Your task to perform on an android device: uninstall "Yahoo Mail" Image 0: 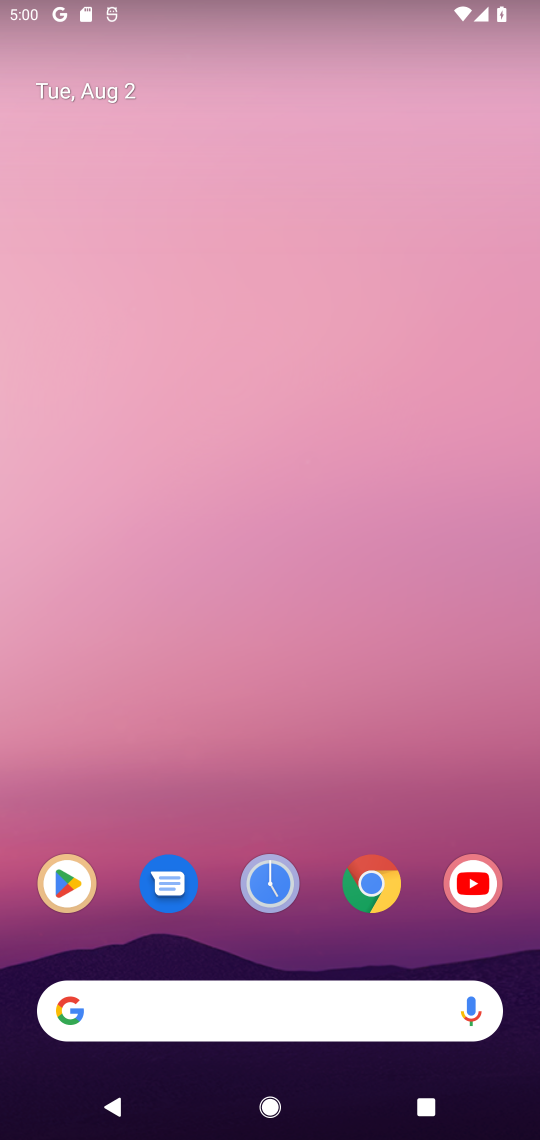
Step 0: click (63, 910)
Your task to perform on an android device: uninstall "Yahoo Mail" Image 1: 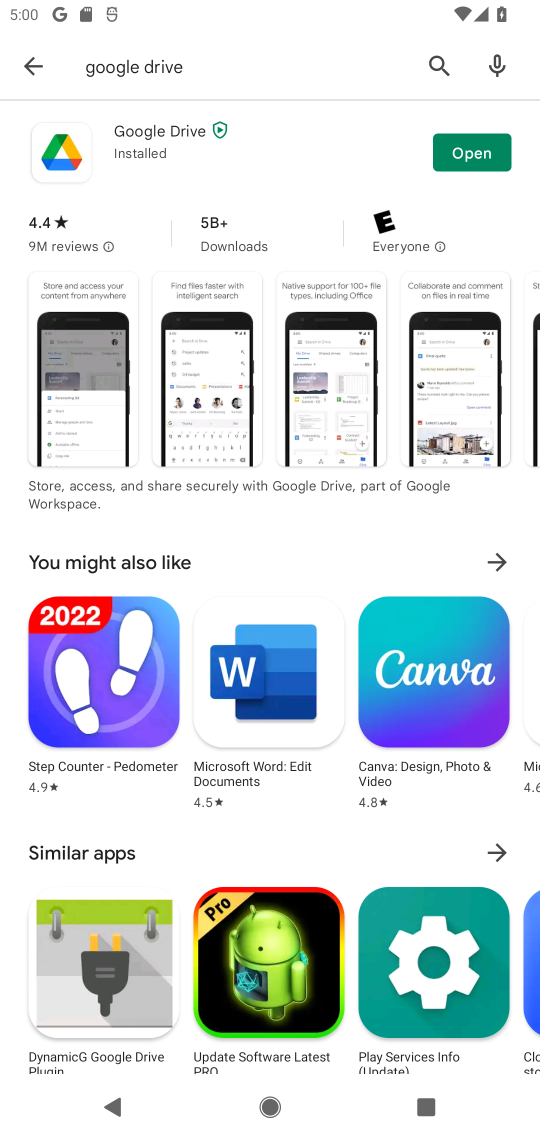
Step 1: click (31, 44)
Your task to perform on an android device: uninstall "Yahoo Mail" Image 2: 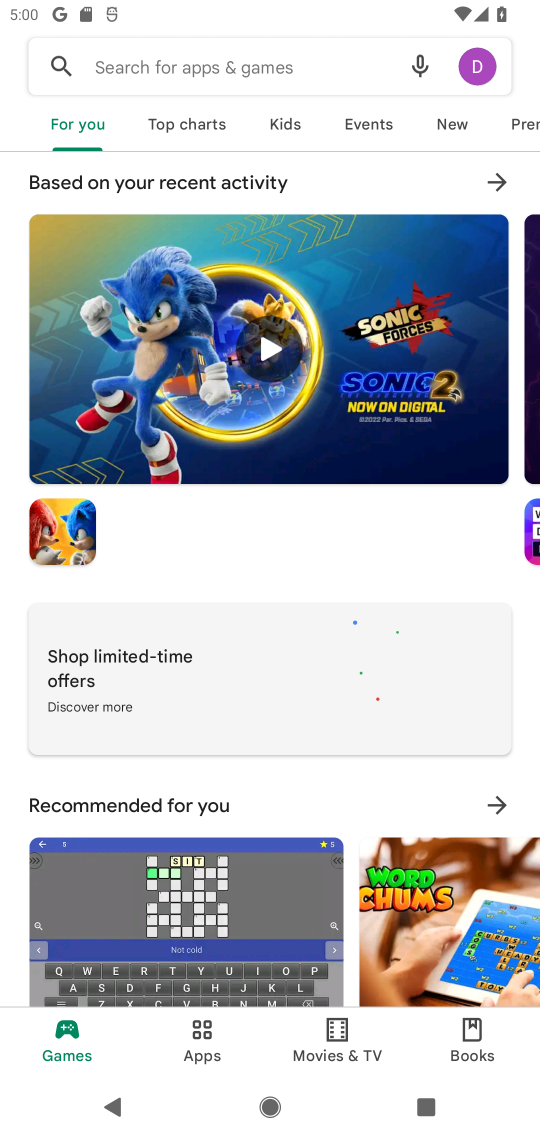
Step 2: click (151, 75)
Your task to perform on an android device: uninstall "Yahoo Mail" Image 3: 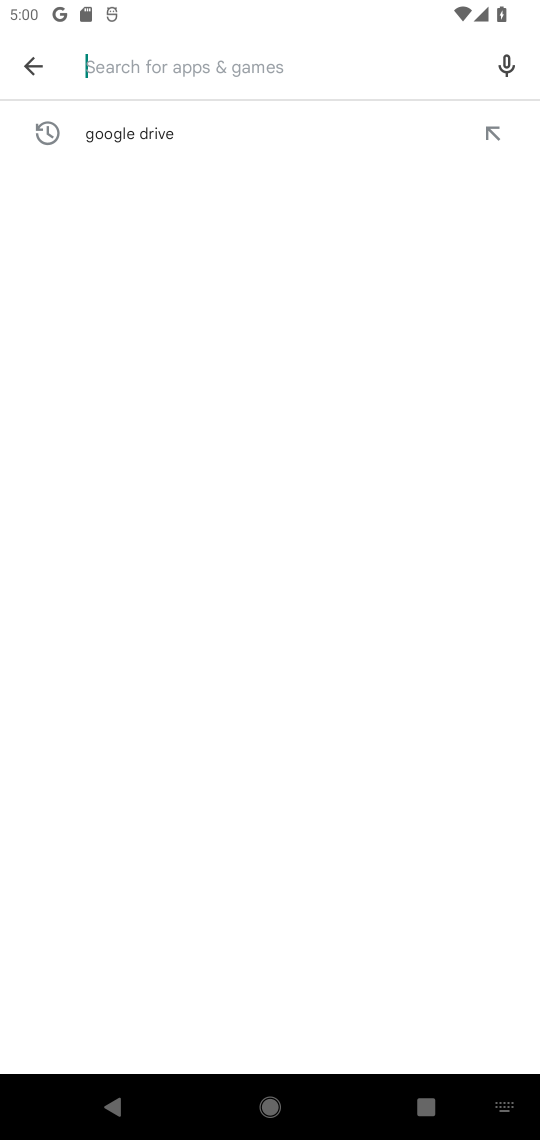
Step 3: type "Yahoo Mail"
Your task to perform on an android device: uninstall "Yahoo Mail" Image 4: 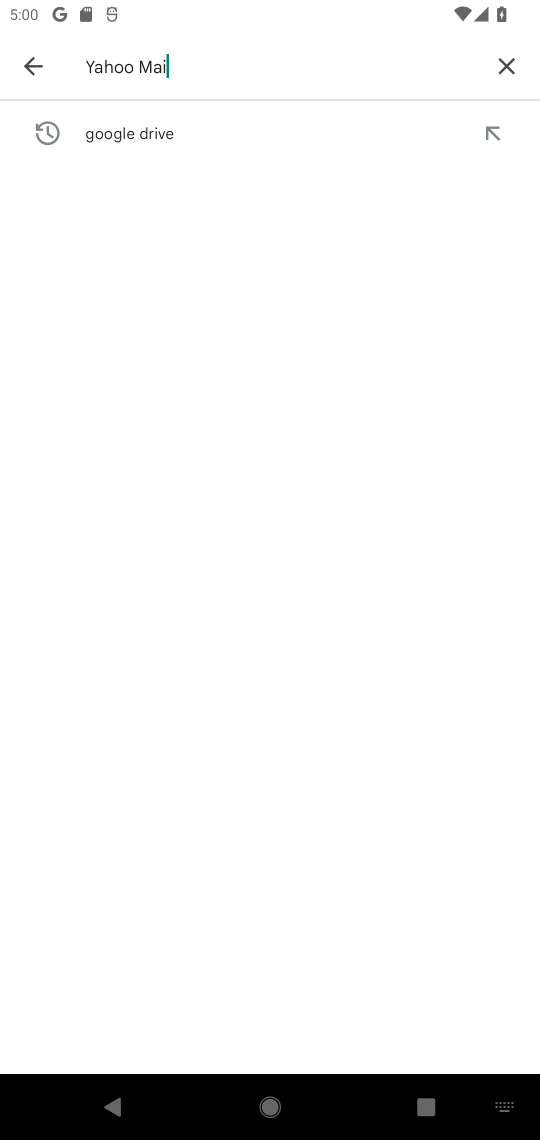
Step 4: type ""
Your task to perform on an android device: uninstall "Yahoo Mail" Image 5: 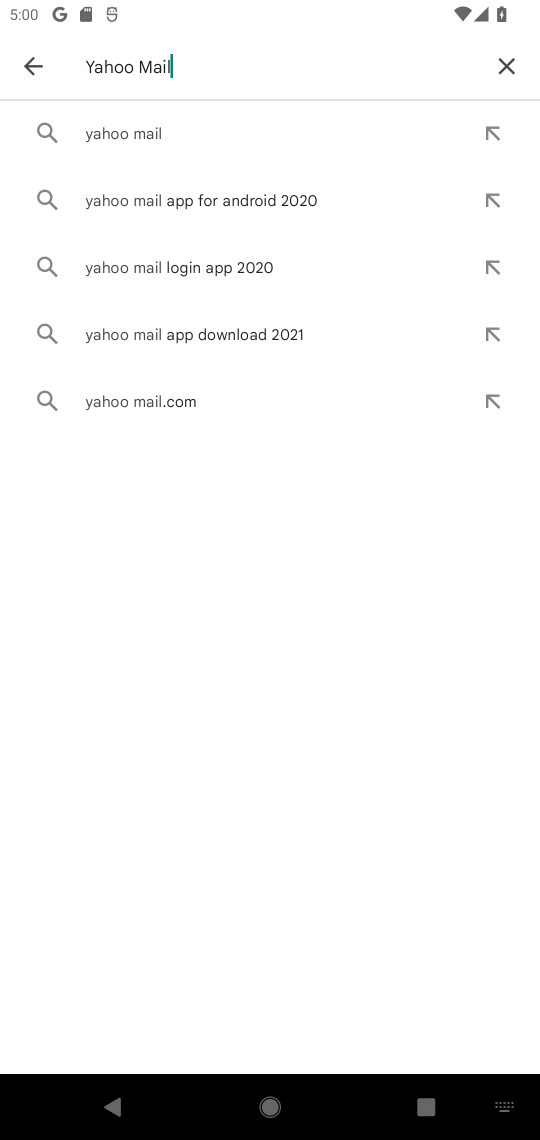
Step 5: click (172, 147)
Your task to perform on an android device: uninstall "Yahoo Mail" Image 6: 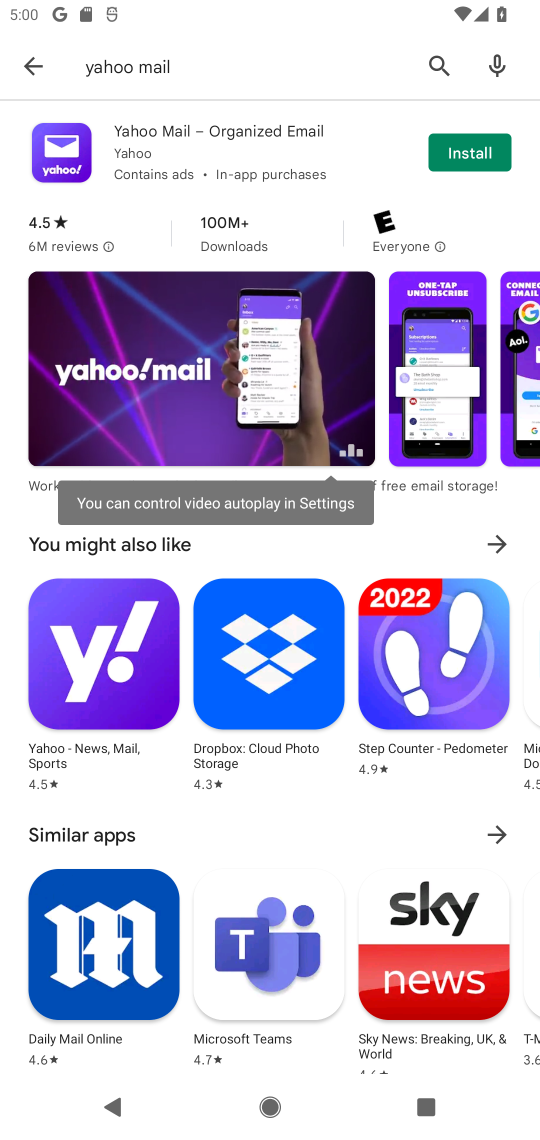
Step 6: task complete